Your task to perform on an android device: Go to network settings Image 0: 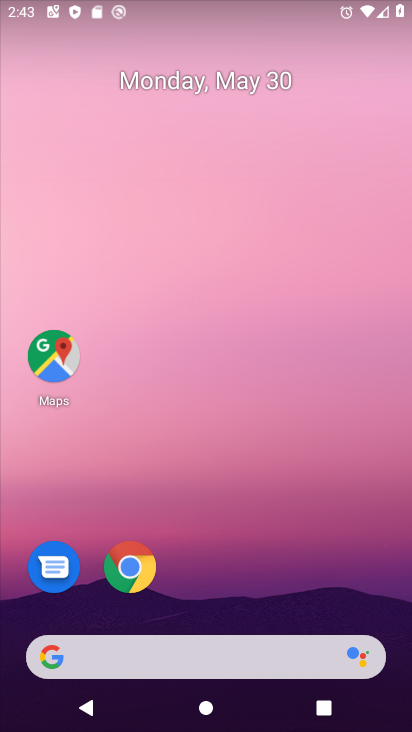
Step 0: drag from (208, 612) to (366, 6)
Your task to perform on an android device: Go to network settings Image 1: 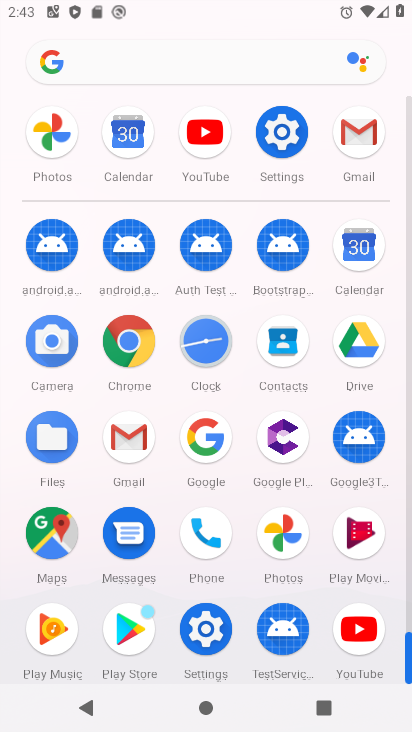
Step 1: click (279, 159)
Your task to perform on an android device: Go to network settings Image 2: 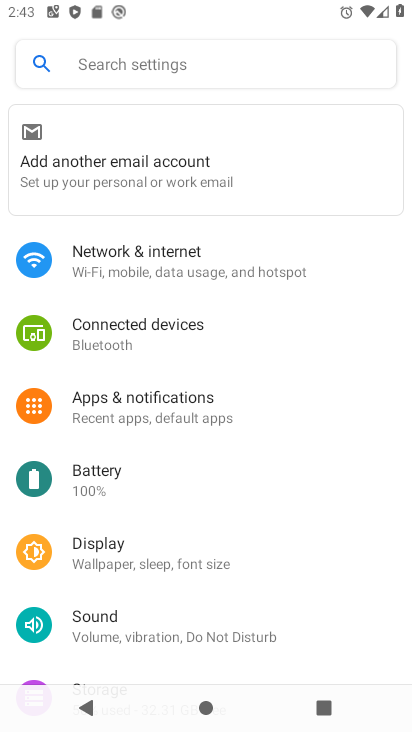
Step 2: click (217, 266)
Your task to perform on an android device: Go to network settings Image 3: 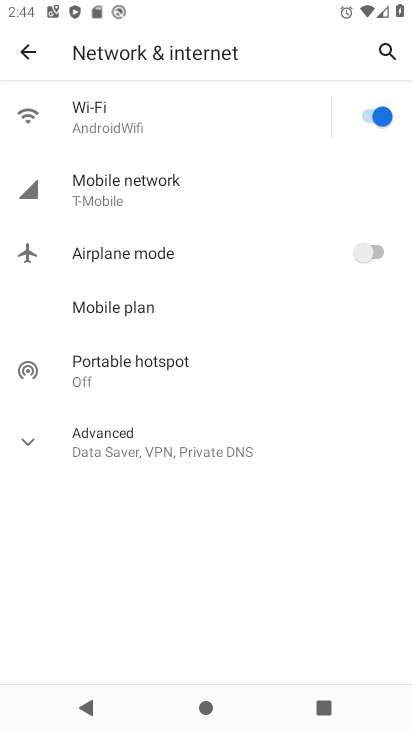
Step 3: click (153, 196)
Your task to perform on an android device: Go to network settings Image 4: 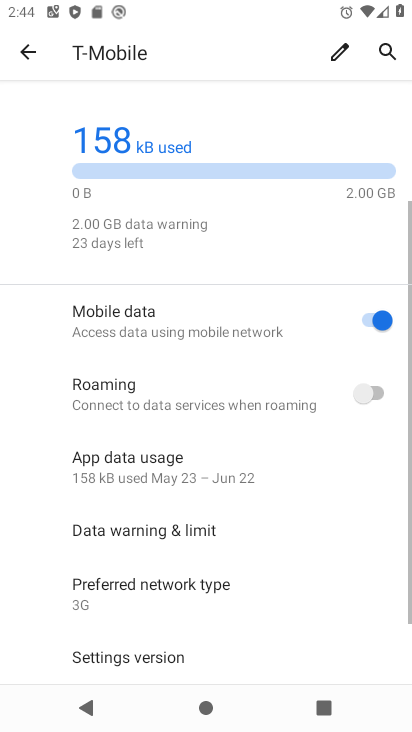
Step 4: task complete